Your task to perform on an android device: clear history in the chrome app Image 0: 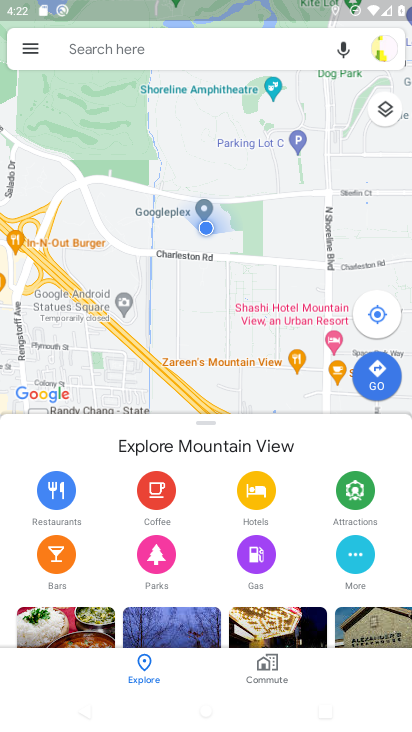
Step 0: press home button
Your task to perform on an android device: clear history in the chrome app Image 1: 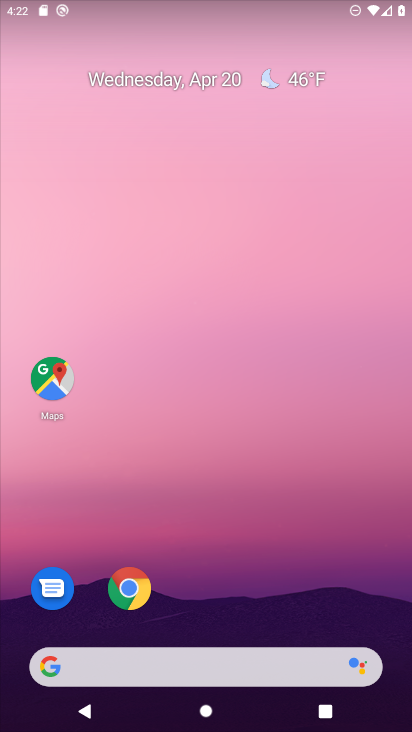
Step 1: click (130, 585)
Your task to perform on an android device: clear history in the chrome app Image 2: 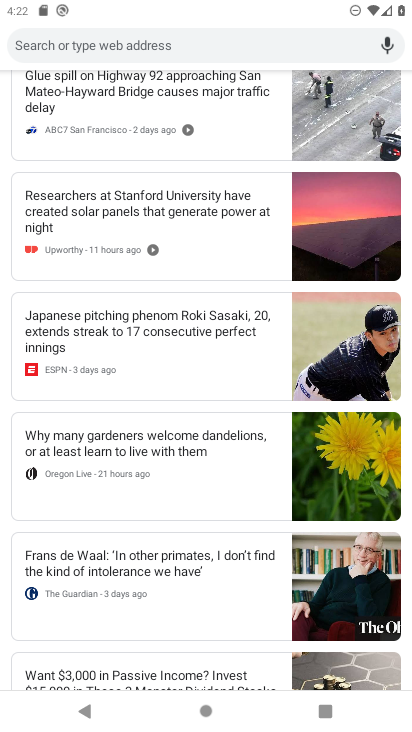
Step 2: drag from (202, 169) to (226, 581)
Your task to perform on an android device: clear history in the chrome app Image 3: 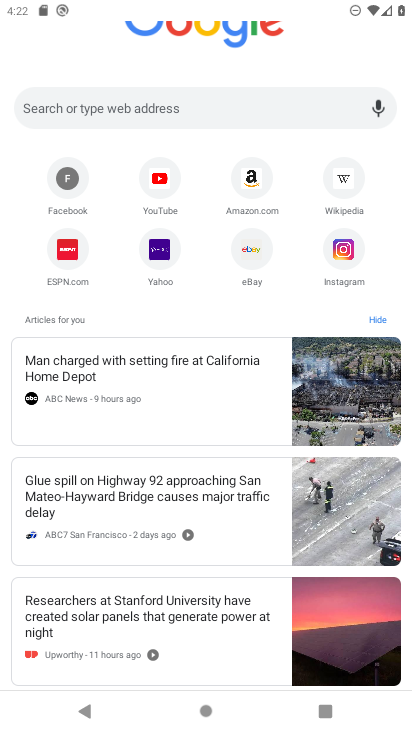
Step 3: drag from (211, 155) to (246, 520)
Your task to perform on an android device: clear history in the chrome app Image 4: 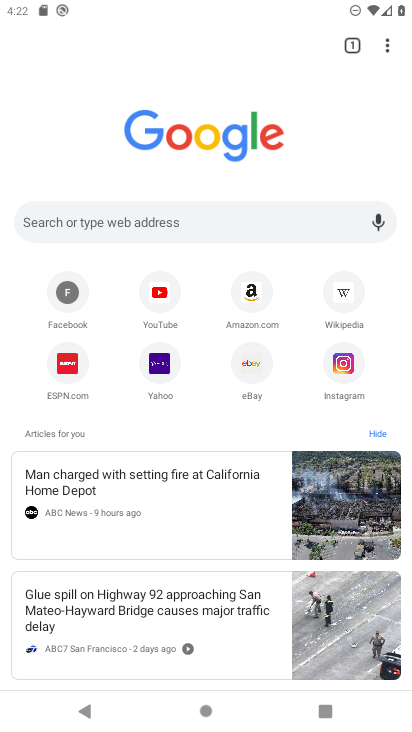
Step 4: click (385, 49)
Your task to perform on an android device: clear history in the chrome app Image 5: 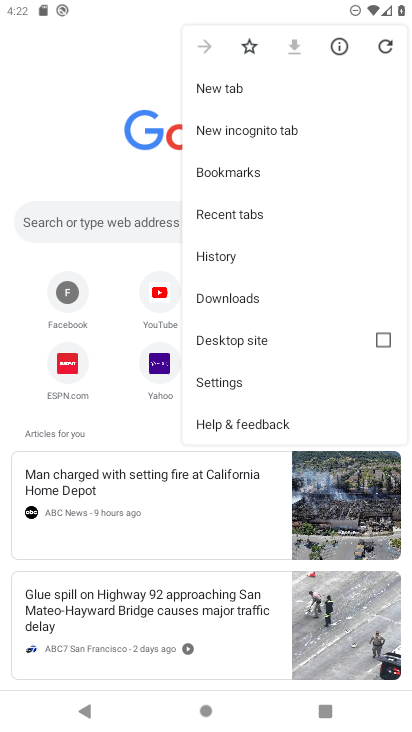
Step 5: click (221, 251)
Your task to perform on an android device: clear history in the chrome app Image 6: 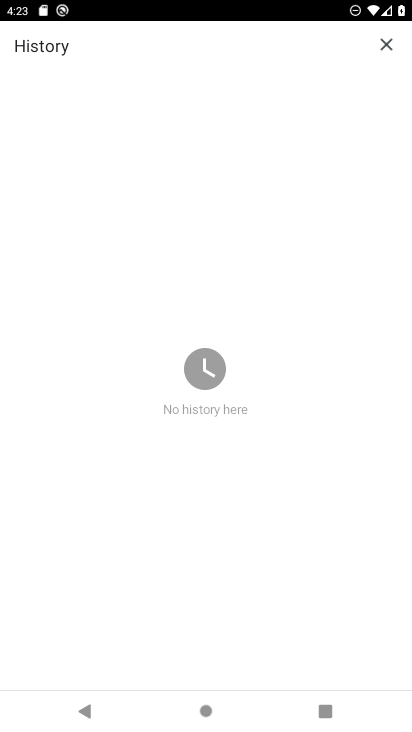
Step 6: task complete